Your task to perform on an android device: Go to ESPN.com Image 0: 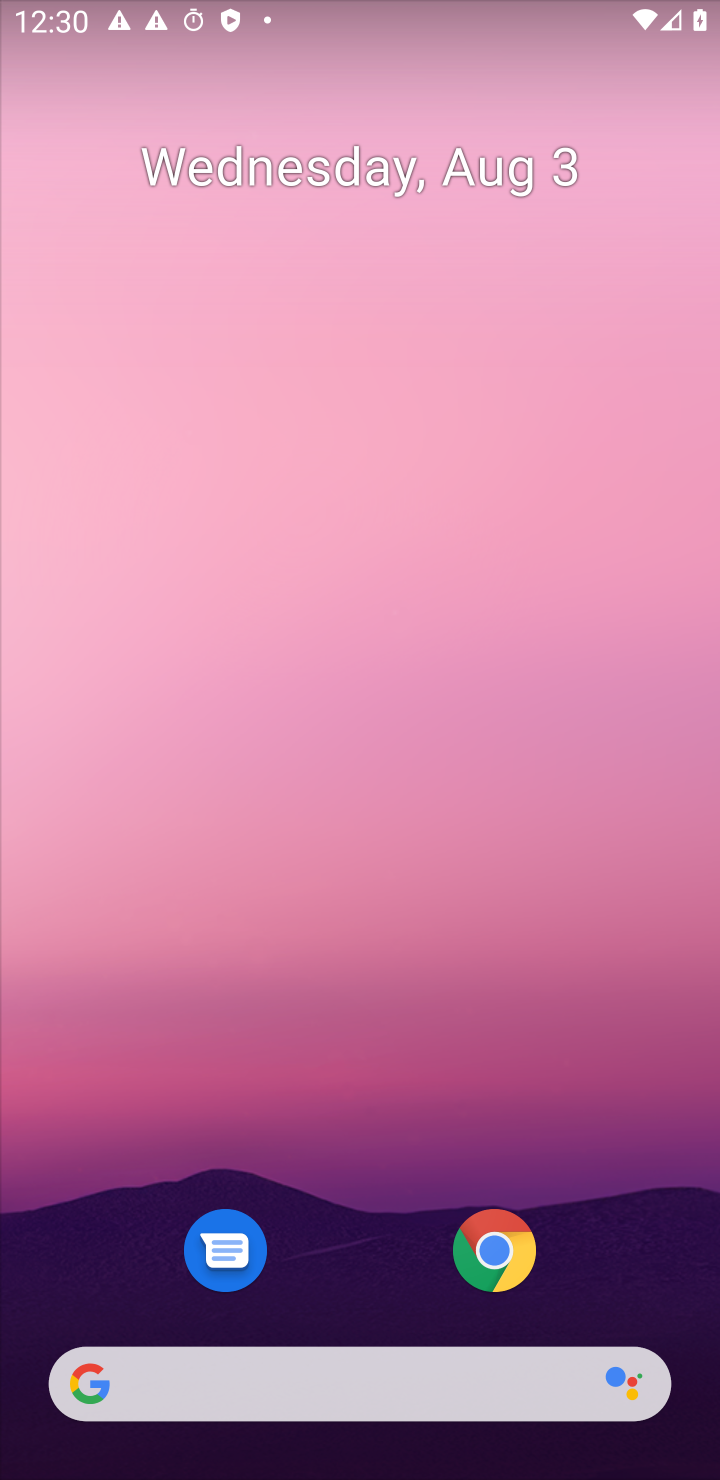
Step 0: click (496, 1254)
Your task to perform on an android device: Go to ESPN.com Image 1: 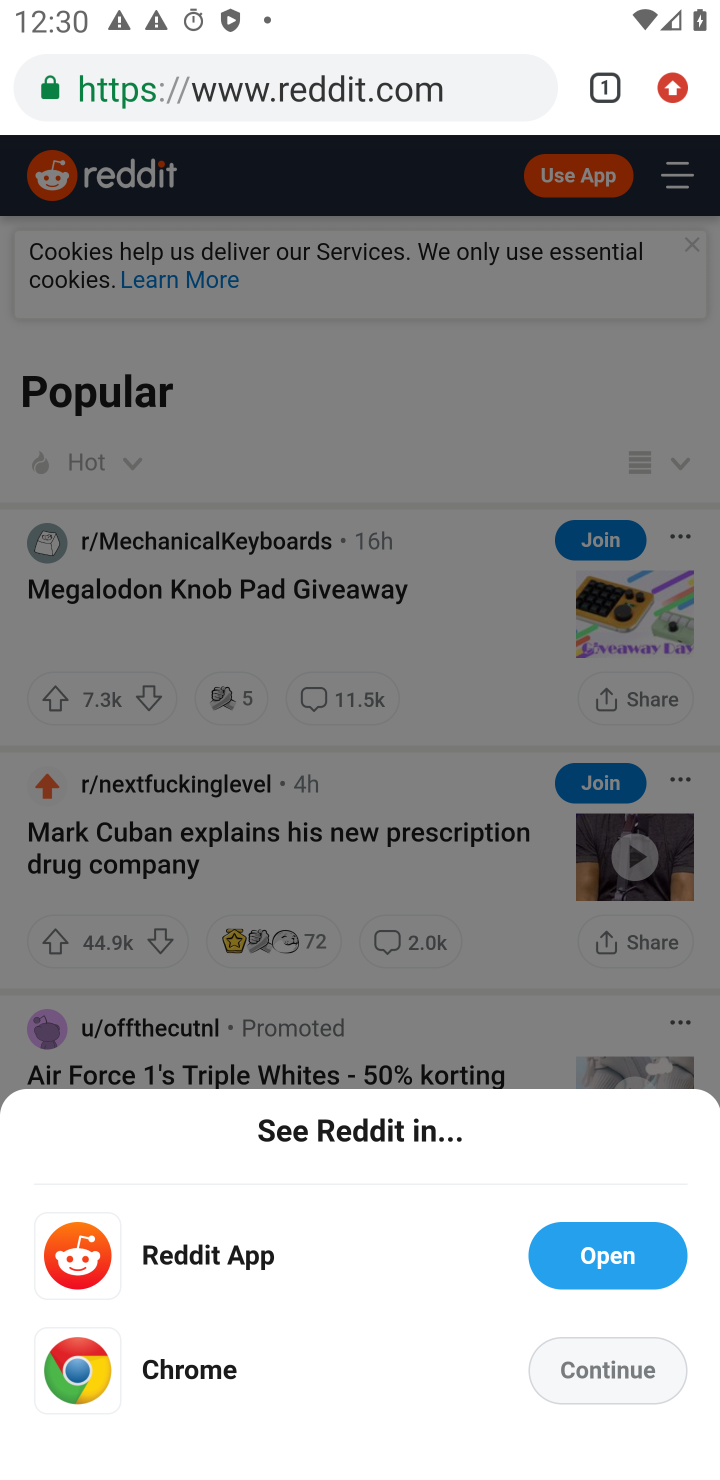
Step 1: click (380, 73)
Your task to perform on an android device: Go to ESPN.com Image 2: 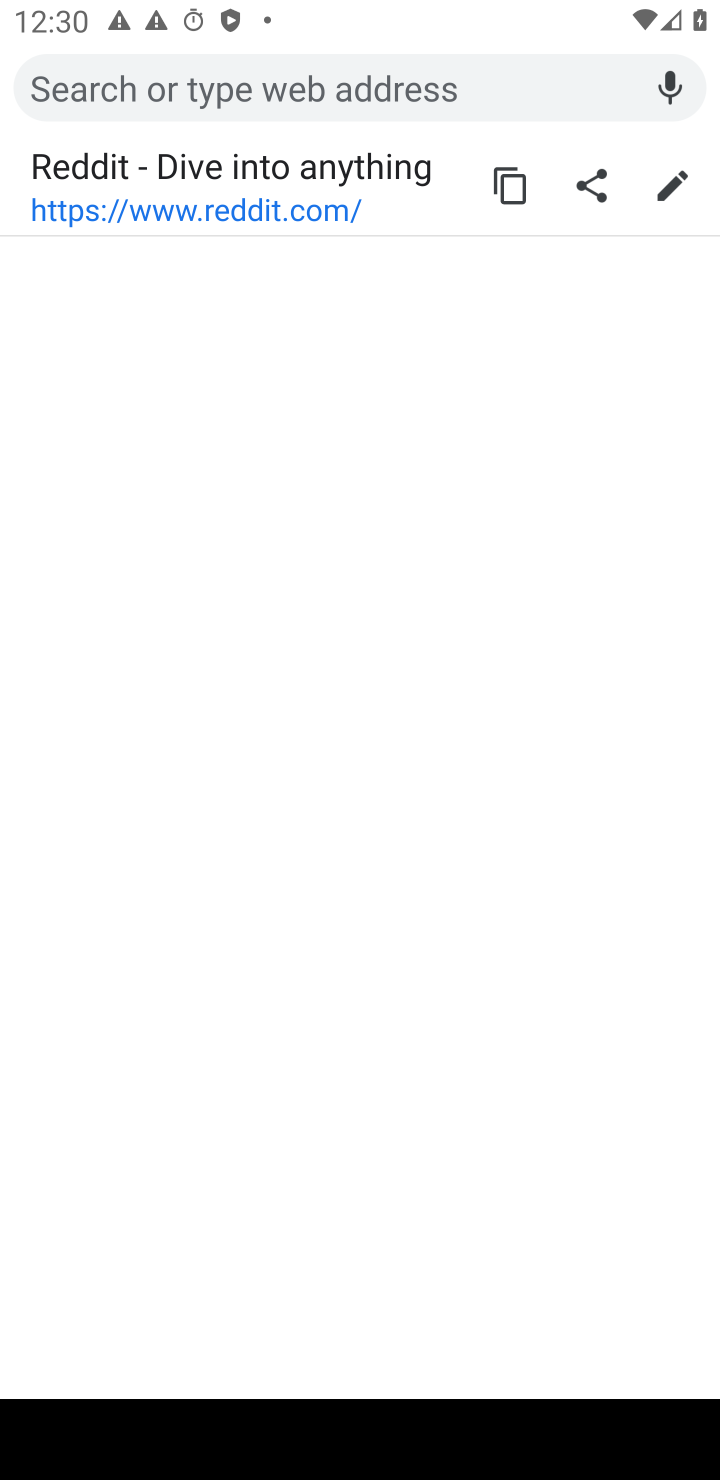
Step 2: type "ESPN.com"
Your task to perform on an android device: Go to ESPN.com Image 3: 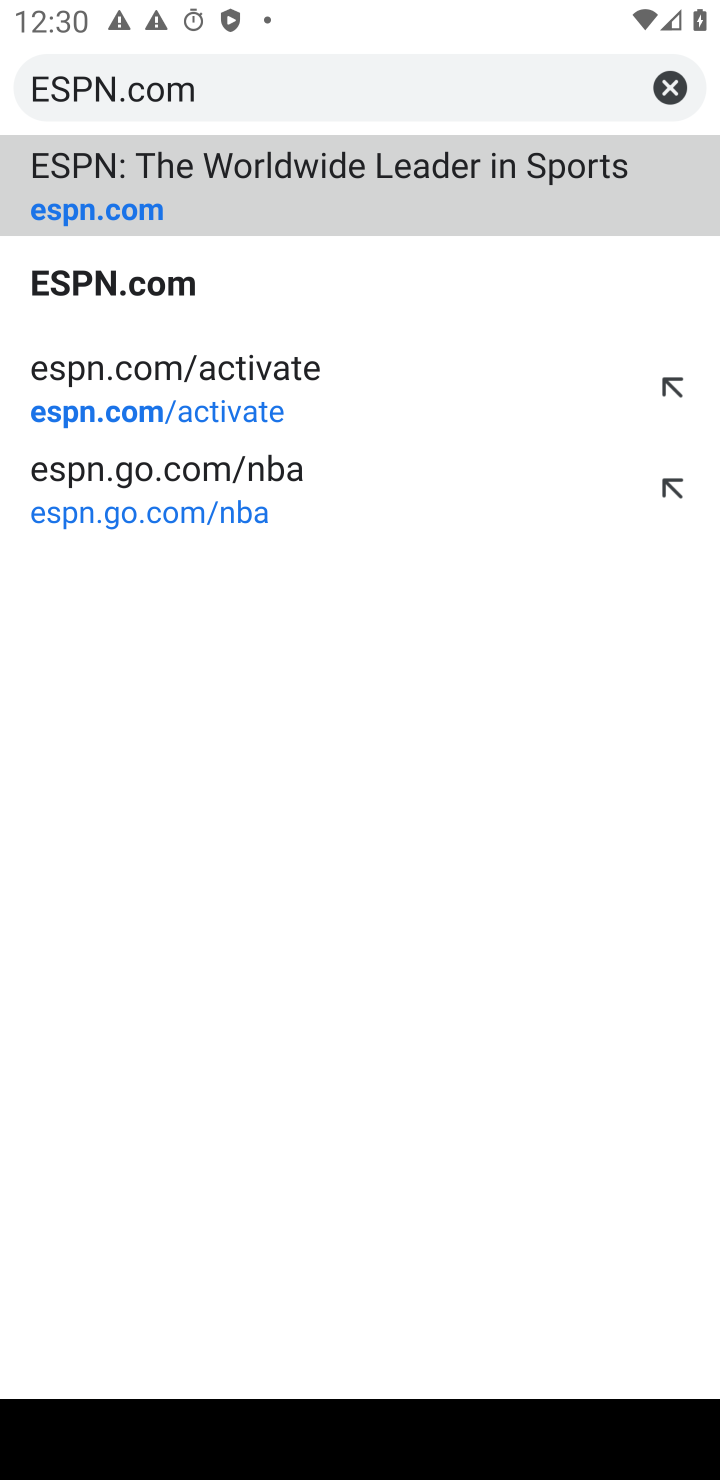
Step 3: click (237, 203)
Your task to perform on an android device: Go to ESPN.com Image 4: 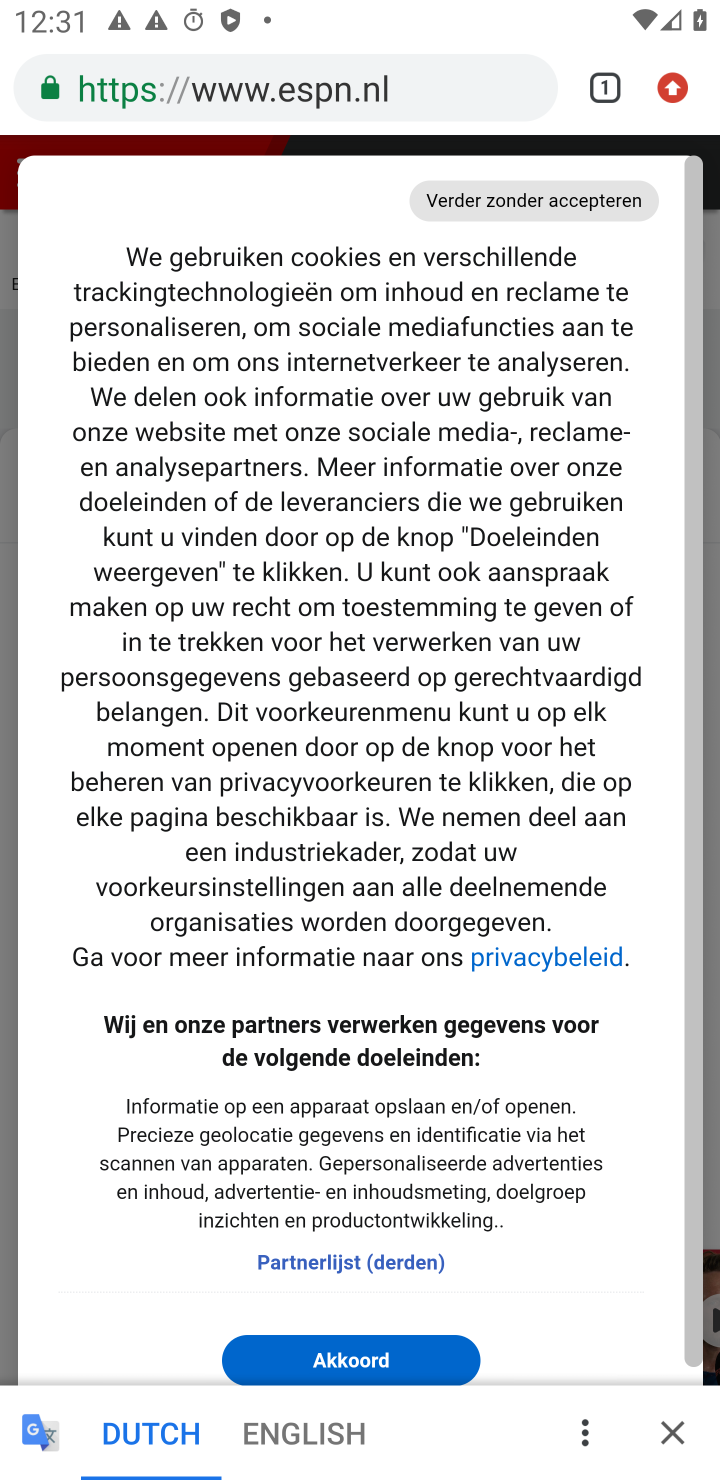
Step 4: task complete